Your task to perform on an android device: Open display settings Image 0: 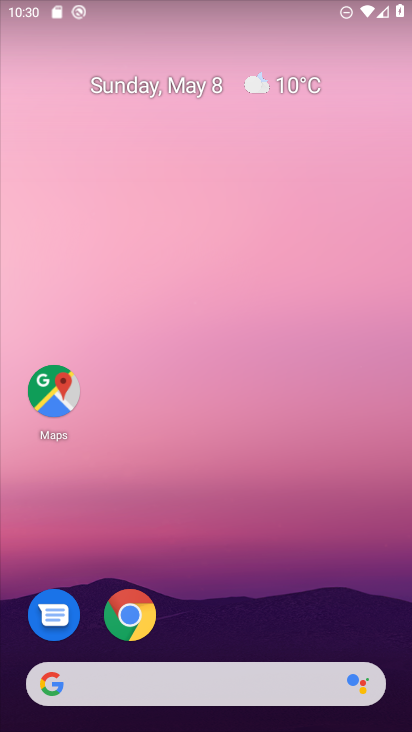
Step 0: drag from (302, 588) to (247, 181)
Your task to perform on an android device: Open display settings Image 1: 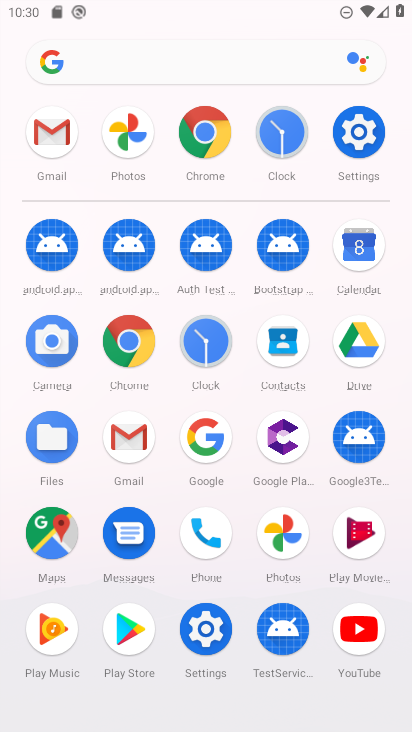
Step 1: click (375, 131)
Your task to perform on an android device: Open display settings Image 2: 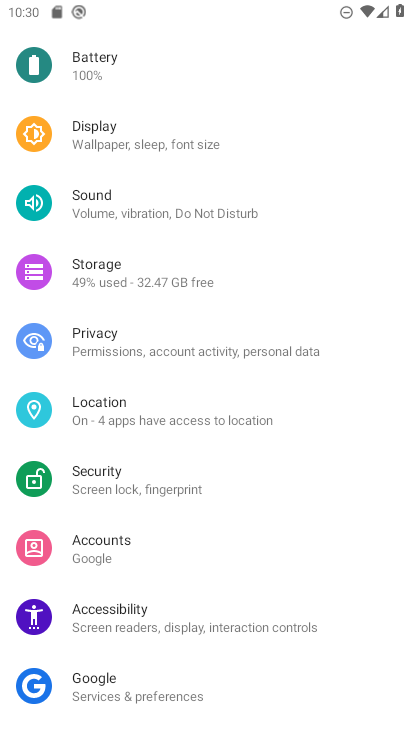
Step 2: click (193, 147)
Your task to perform on an android device: Open display settings Image 3: 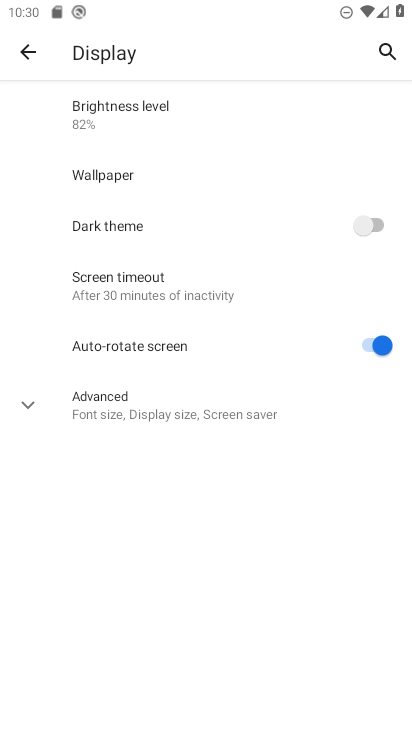
Step 3: task complete